Your task to perform on an android device: add a contact in the contacts app Image 0: 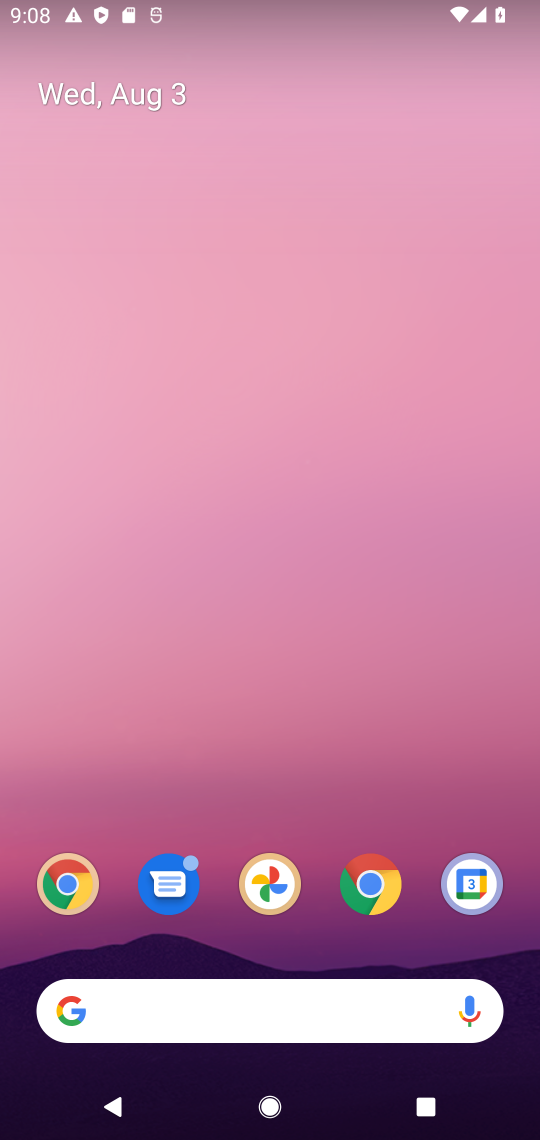
Step 0: press home button
Your task to perform on an android device: add a contact in the contacts app Image 1: 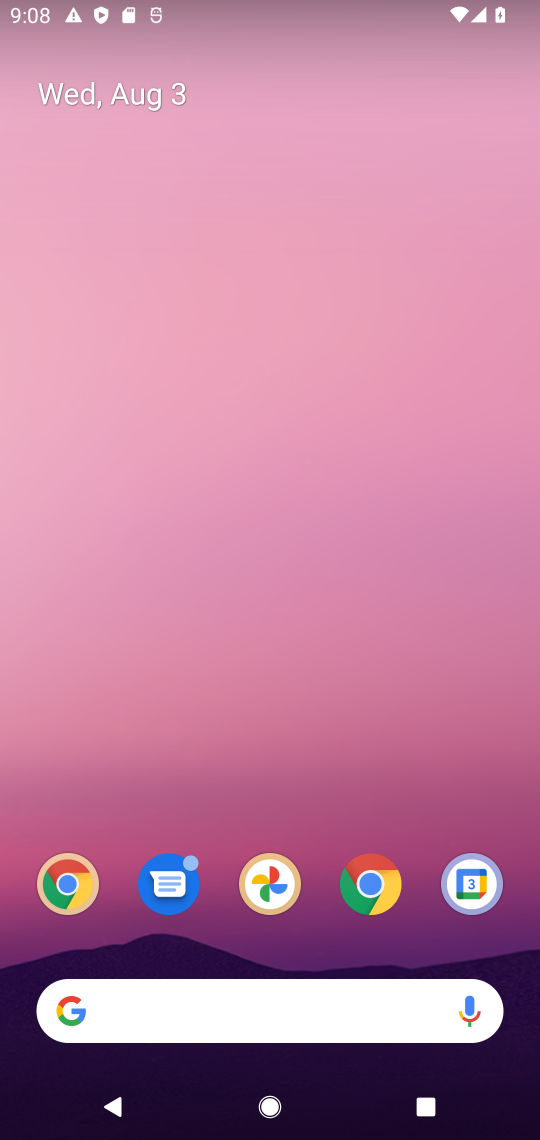
Step 1: drag from (371, 961) to (263, 137)
Your task to perform on an android device: add a contact in the contacts app Image 2: 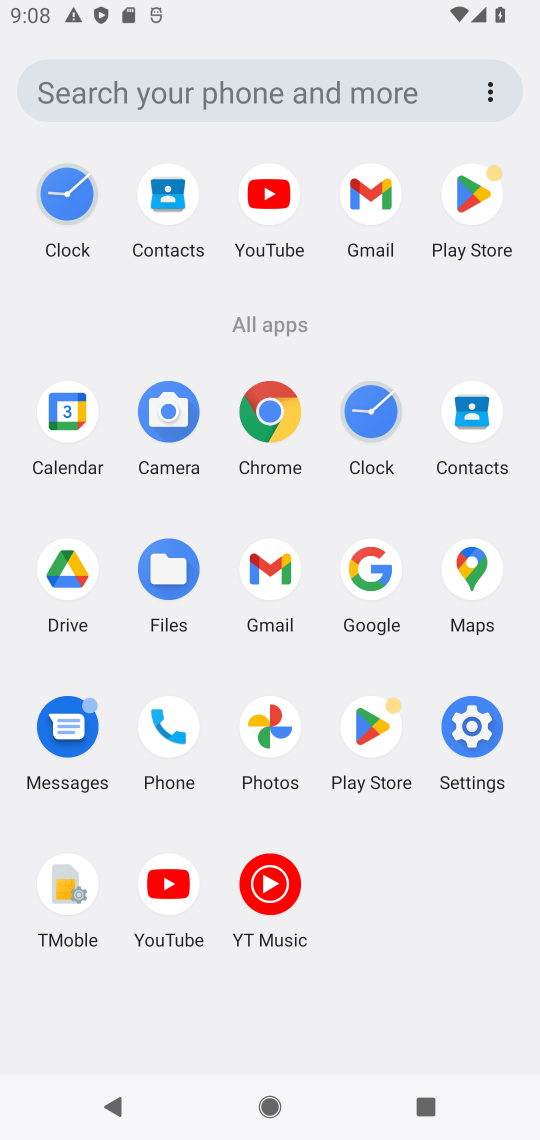
Step 2: click (453, 449)
Your task to perform on an android device: add a contact in the contacts app Image 3: 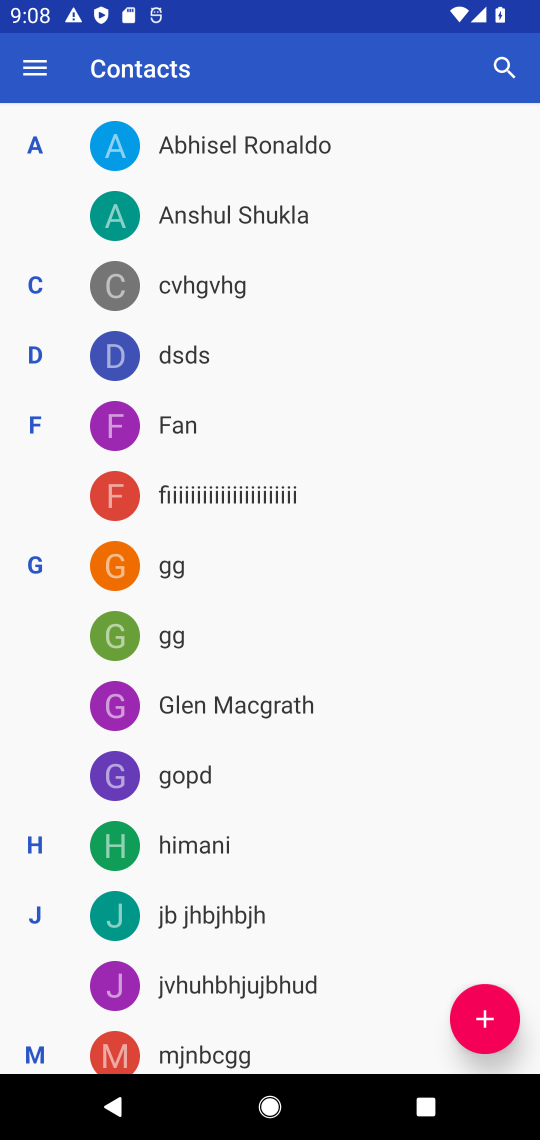
Step 3: click (485, 1006)
Your task to perform on an android device: add a contact in the contacts app Image 4: 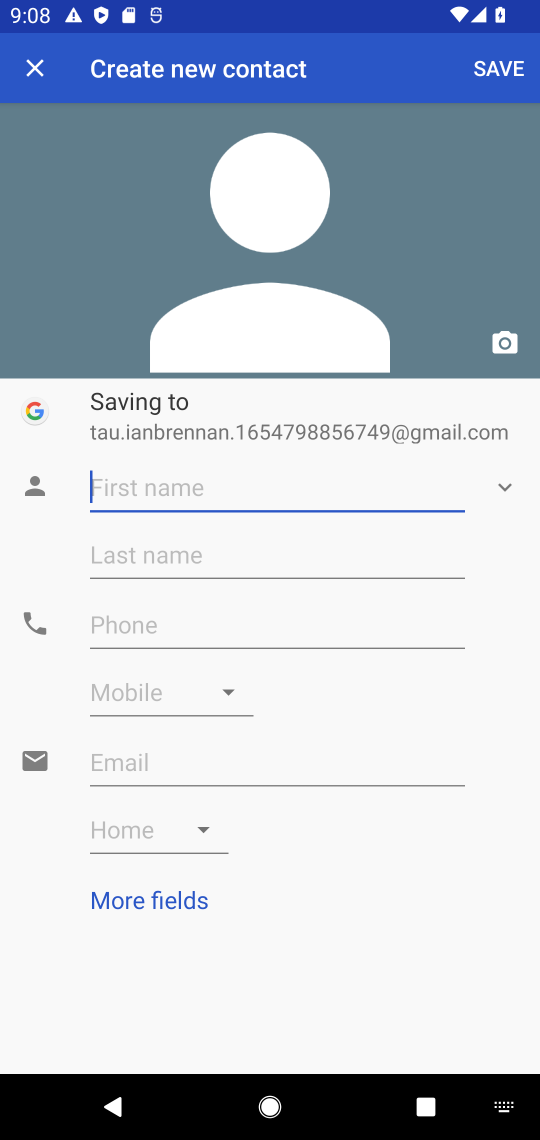
Step 4: type "aghklymb"
Your task to perform on an android device: add a contact in the contacts app Image 5: 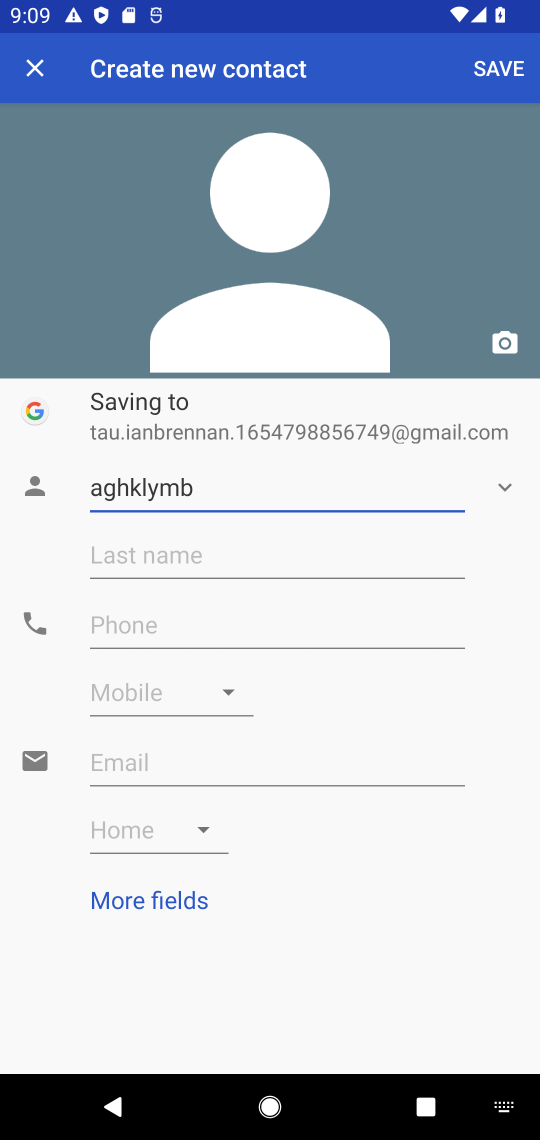
Step 5: click (213, 618)
Your task to perform on an android device: add a contact in the contacts app Image 6: 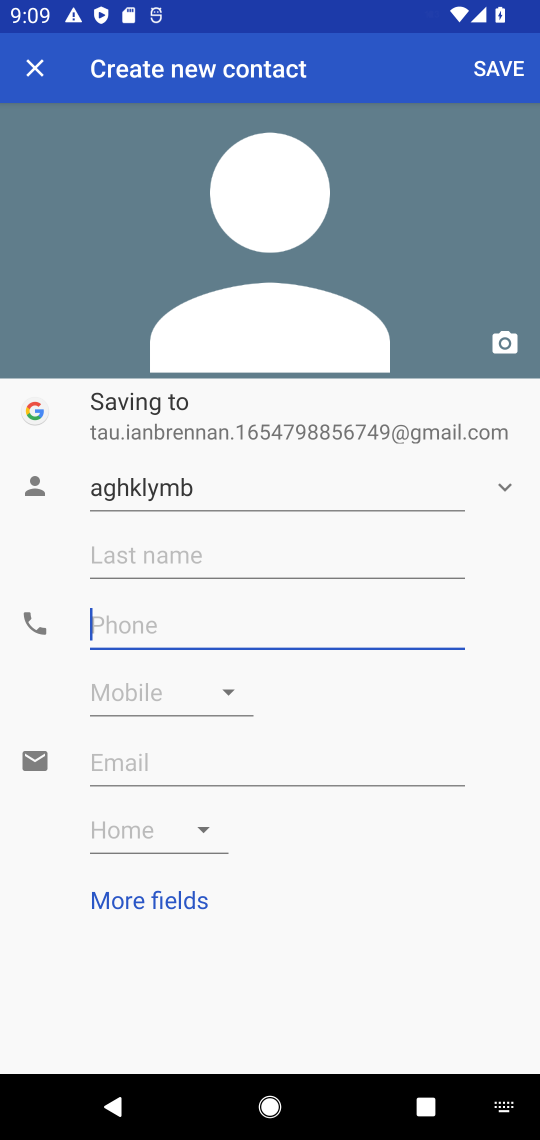
Step 6: click (213, 618)
Your task to perform on an android device: add a contact in the contacts app Image 7: 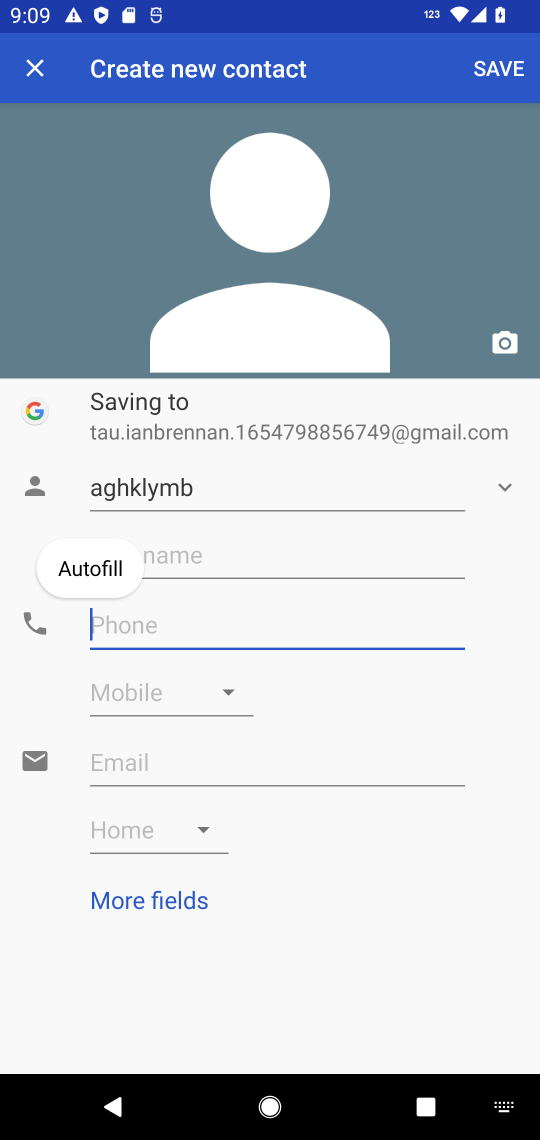
Step 7: type "789485840876"
Your task to perform on an android device: add a contact in the contacts app Image 8: 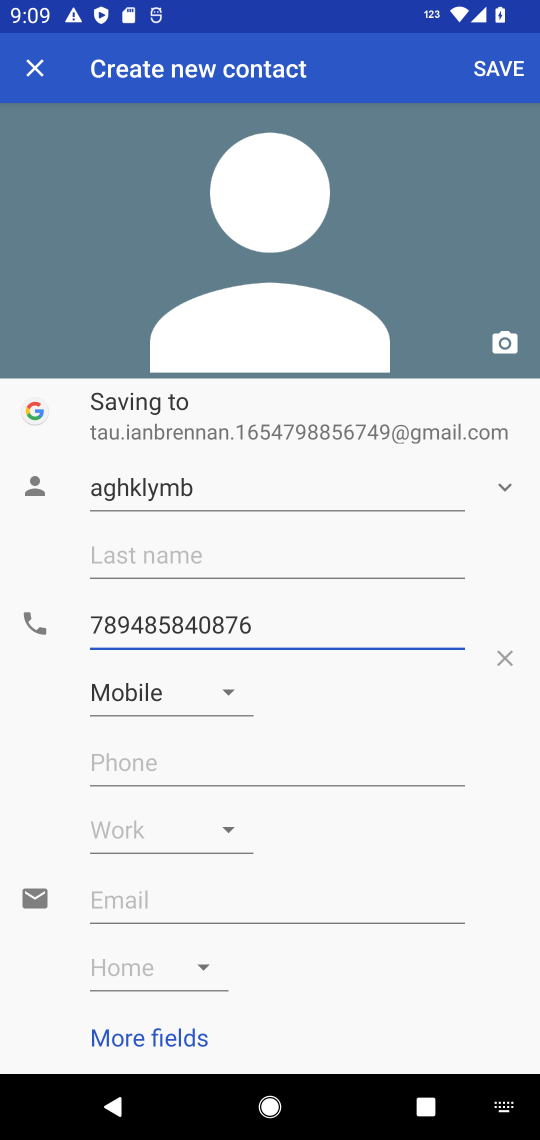
Step 8: click (499, 81)
Your task to perform on an android device: add a contact in the contacts app Image 9: 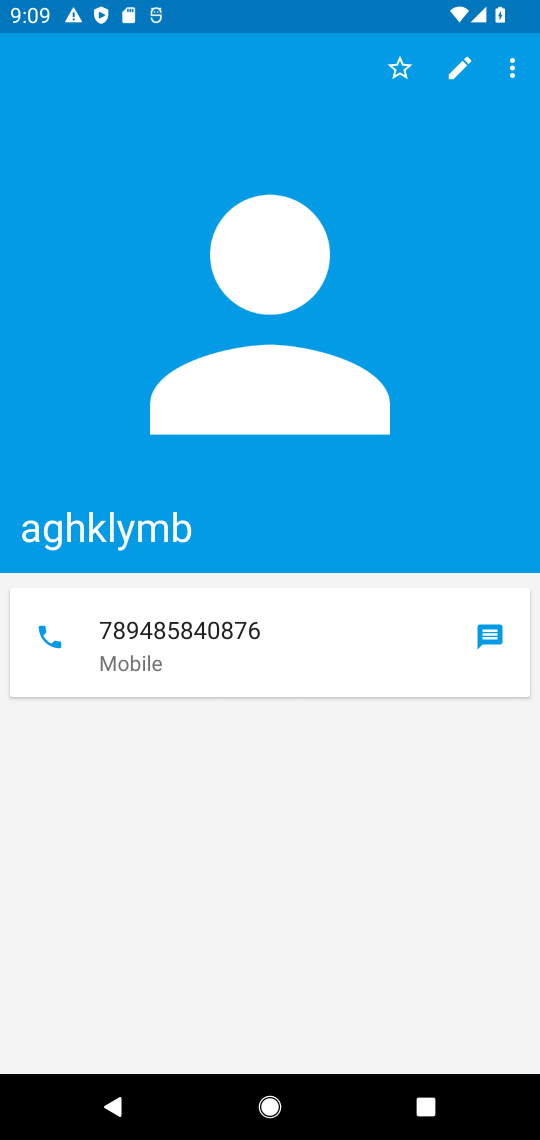
Step 9: task complete